Your task to perform on an android device: Search for pizza restaurants on Maps Image 0: 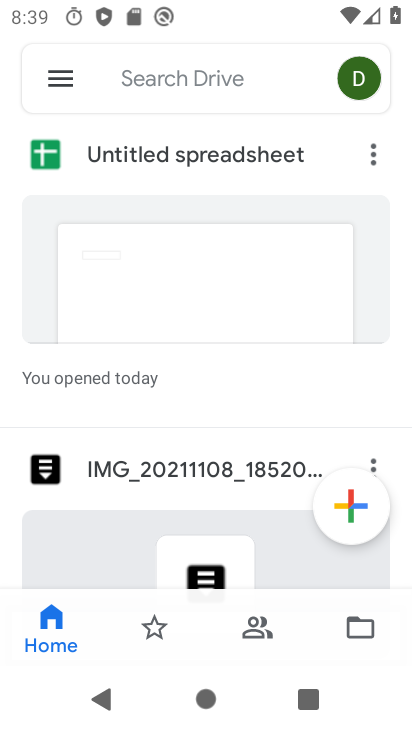
Step 0: press home button
Your task to perform on an android device: Search for pizza restaurants on Maps Image 1: 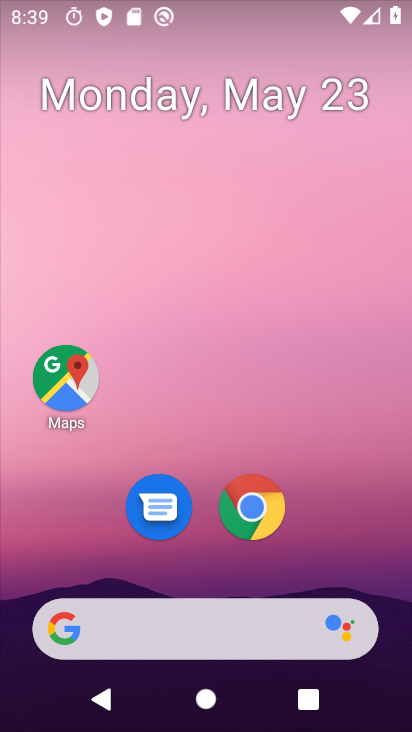
Step 1: drag from (338, 558) to (334, 78)
Your task to perform on an android device: Search for pizza restaurants on Maps Image 2: 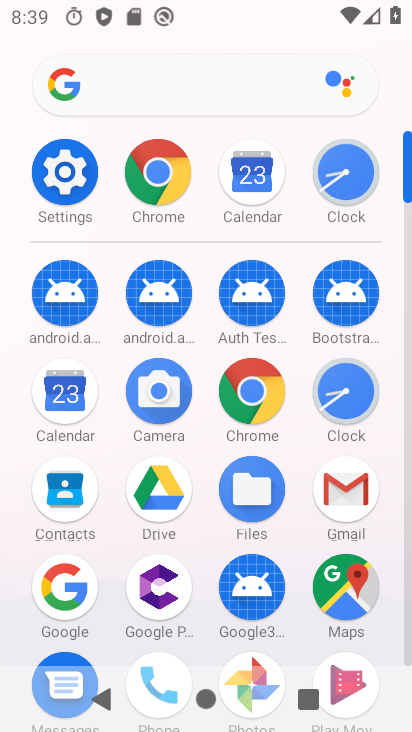
Step 2: click (334, 601)
Your task to perform on an android device: Search for pizza restaurants on Maps Image 3: 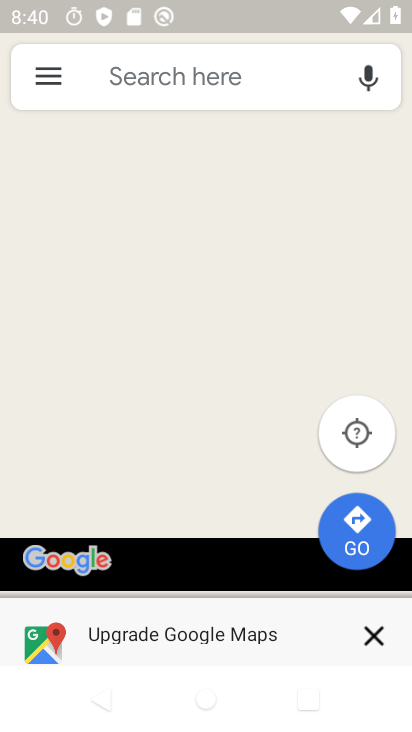
Step 3: click (195, 103)
Your task to perform on an android device: Search for pizza restaurants on Maps Image 4: 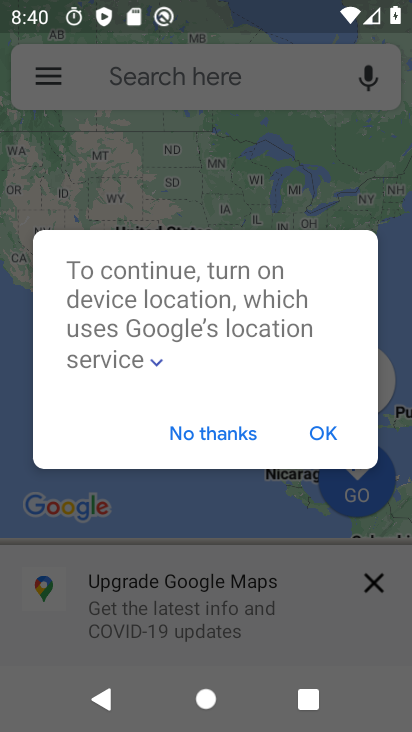
Step 4: click (204, 424)
Your task to perform on an android device: Search for pizza restaurants on Maps Image 5: 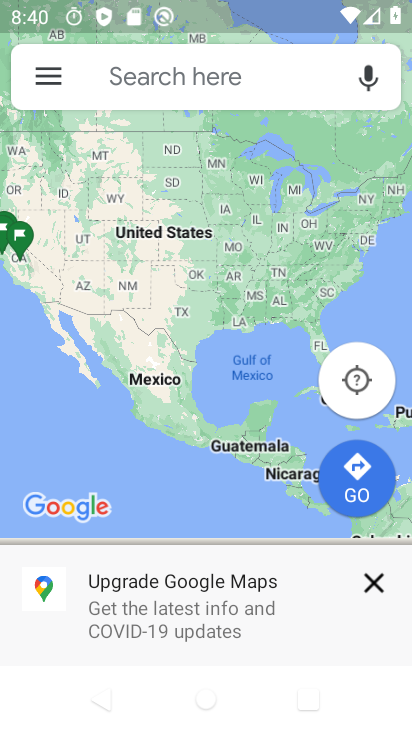
Step 5: click (230, 89)
Your task to perform on an android device: Search for pizza restaurants on Maps Image 6: 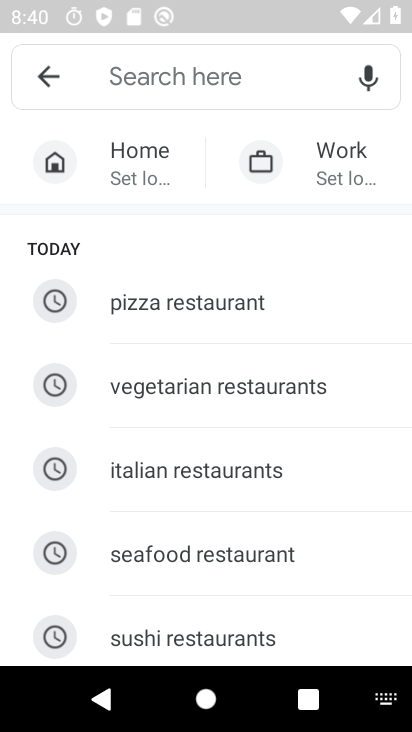
Step 6: drag from (192, 608) to (209, 217)
Your task to perform on an android device: Search for pizza restaurants on Maps Image 7: 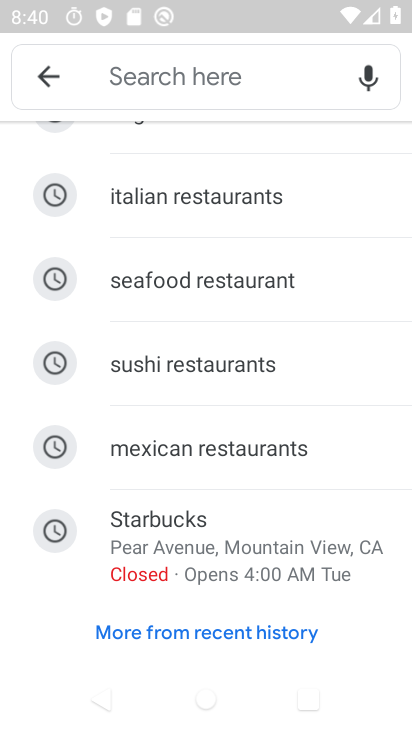
Step 7: drag from (212, 229) to (237, 614)
Your task to perform on an android device: Search for pizza restaurants on Maps Image 8: 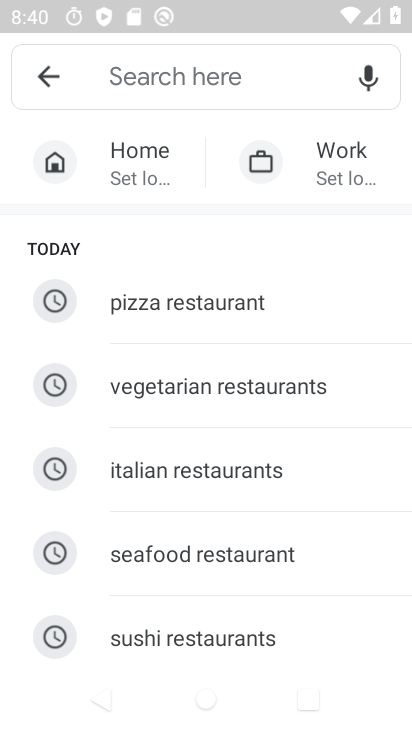
Step 8: click (142, 308)
Your task to perform on an android device: Search for pizza restaurants on Maps Image 9: 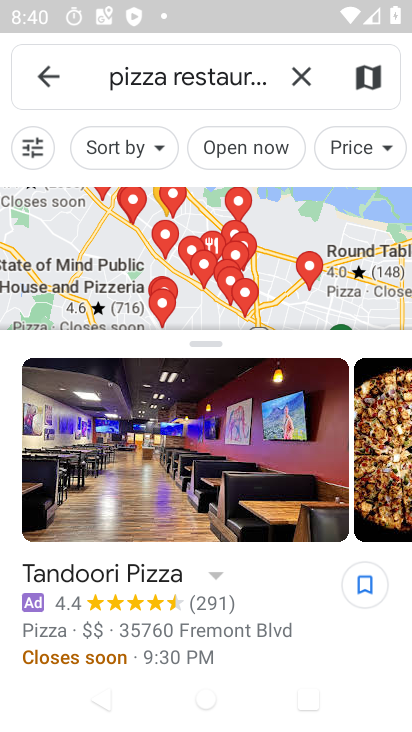
Step 9: task complete